Your task to perform on an android device: check storage Image 0: 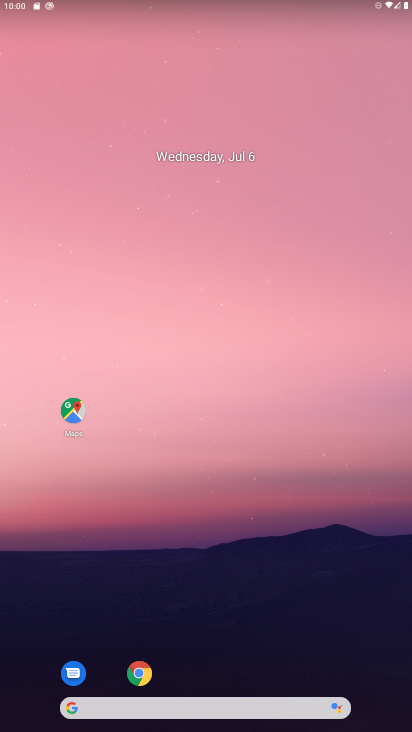
Step 0: drag from (252, 647) to (247, 158)
Your task to perform on an android device: check storage Image 1: 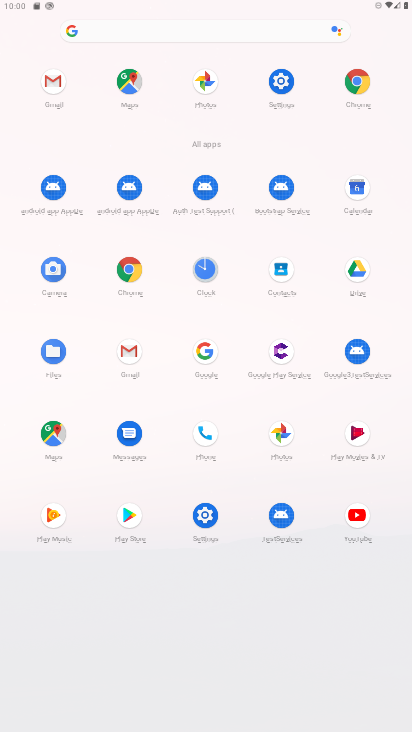
Step 1: click (207, 522)
Your task to perform on an android device: check storage Image 2: 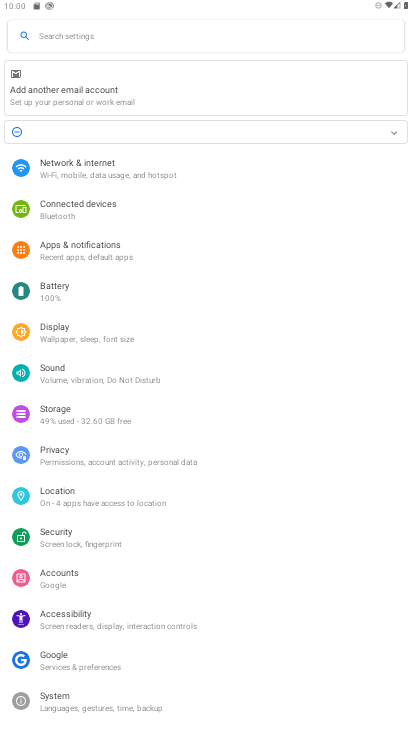
Step 2: click (87, 419)
Your task to perform on an android device: check storage Image 3: 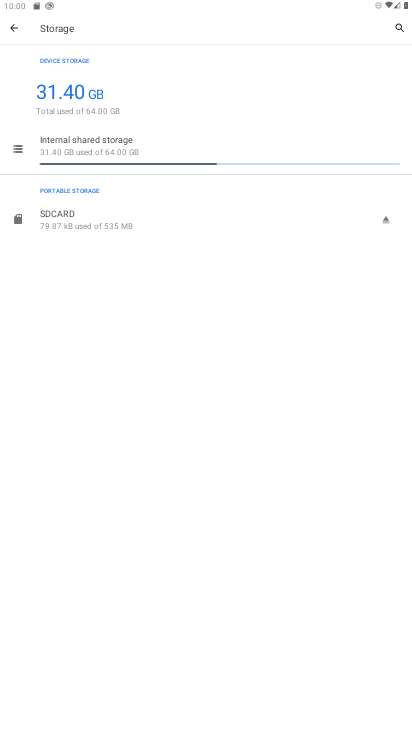
Step 3: task complete